Your task to perform on an android device: Open Maps and search for coffee Image 0: 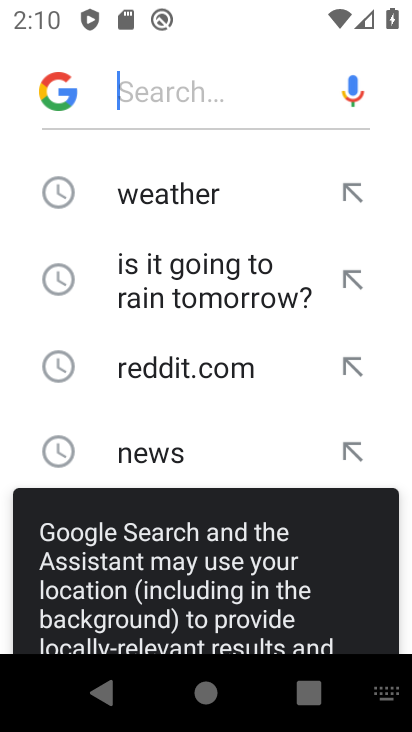
Step 0: press back button
Your task to perform on an android device: Open Maps and search for coffee Image 1: 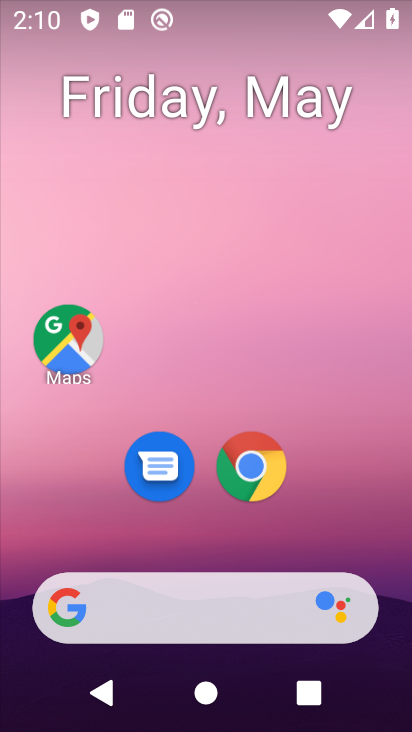
Step 1: click (68, 354)
Your task to perform on an android device: Open Maps and search for coffee Image 2: 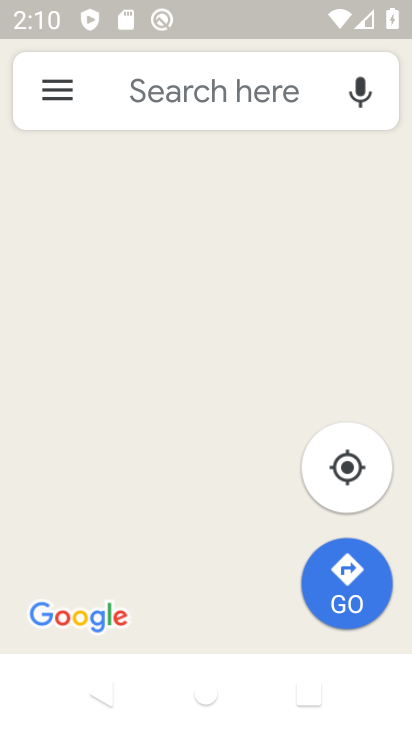
Step 2: click (195, 100)
Your task to perform on an android device: Open Maps and search for coffee Image 3: 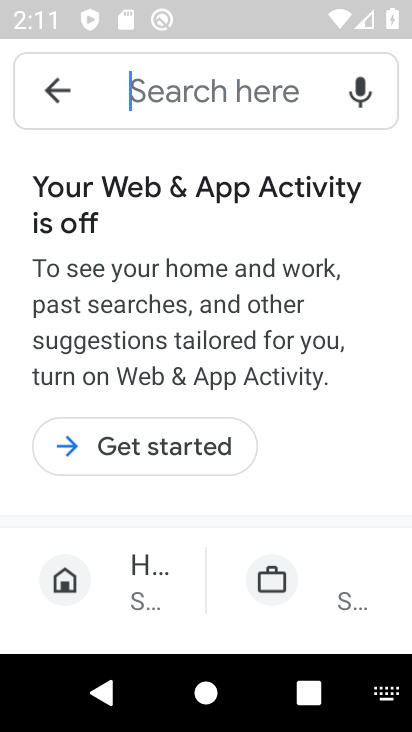
Step 3: type "coffee"
Your task to perform on an android device: Open Maps and search for coffee Image 4: 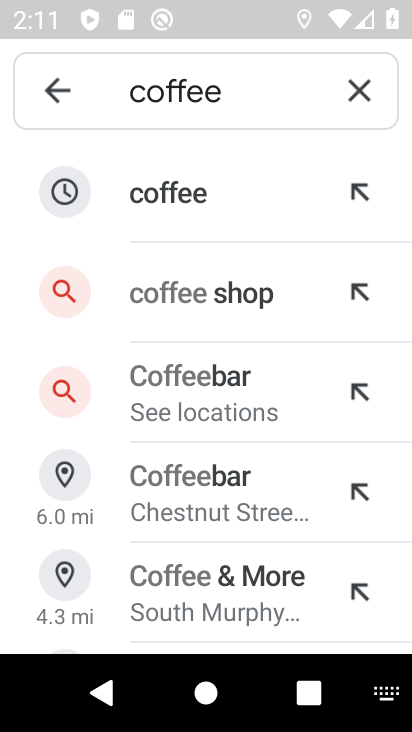
Step 4: click (167, 199)
Your task to perform on an android device: Open Maps and search for coffee Image 5: 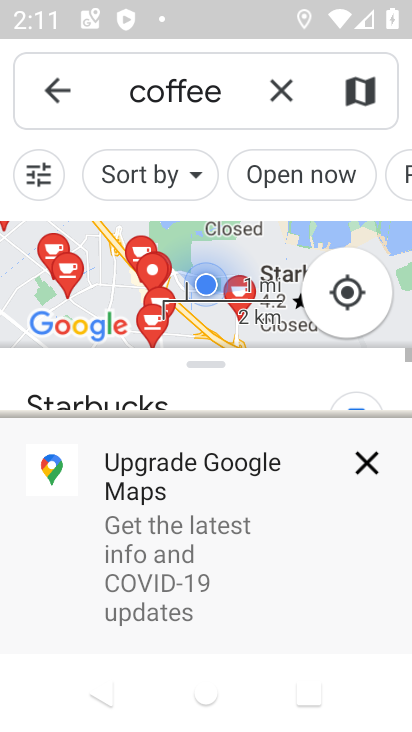
Step 5: task complete